Your task to perform on an android device: turn off location Image 0: 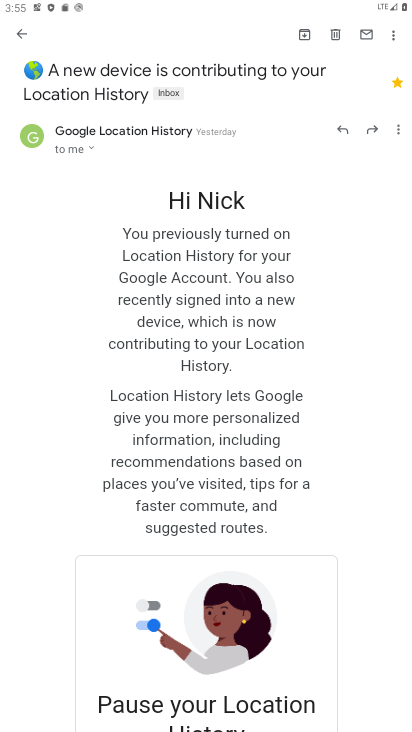
Step 0: press home button
Your task to perform on an android device: turn off location Image 1: 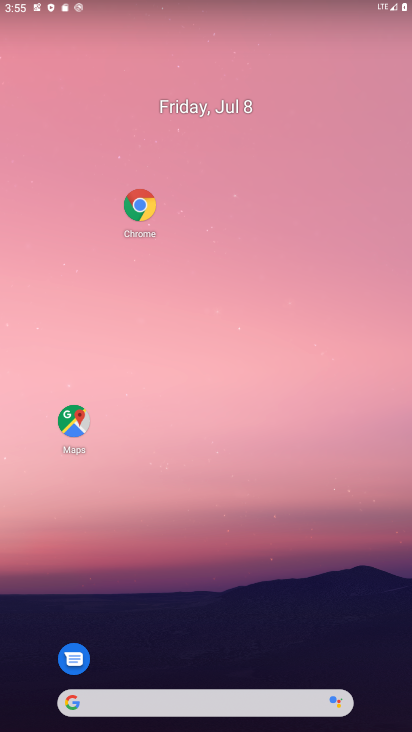
Step 1: drag from (201, 648) to (239, 16)
Your task to perform on an android device: turn off location Image 2: 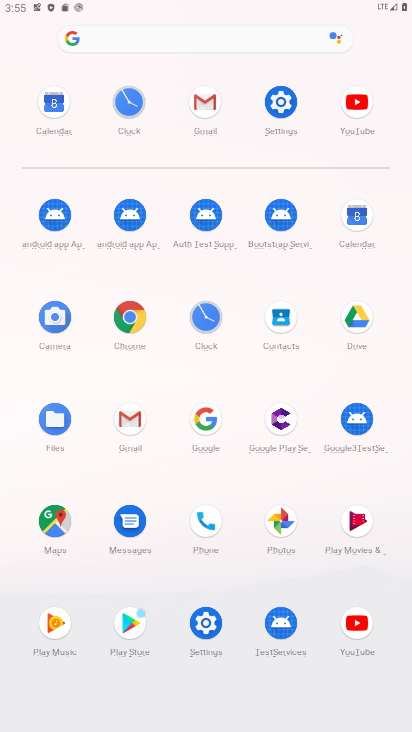
Step 2: click (270, 81)
Your task to perform on an android device: turn off location Image 3: 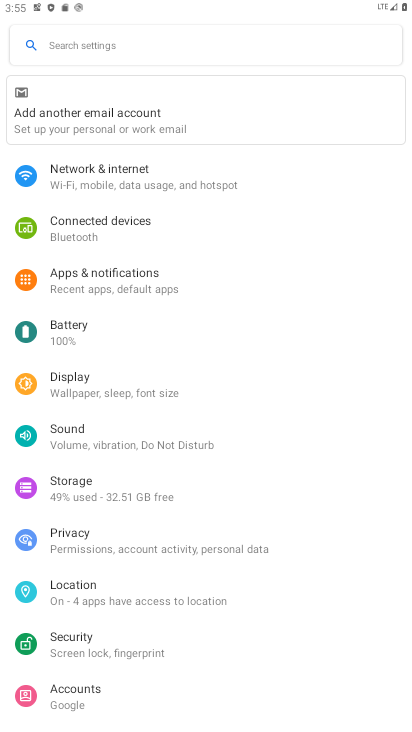
Step 3: click (131, 610)
Your task to perform on an android device: turn off location Image 4: 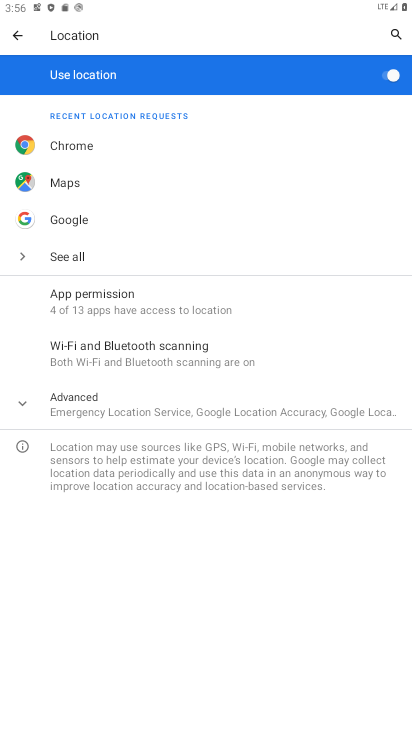
Step 4: click (380, 82)
Your task to perform on an android device: turn off location Image 5: 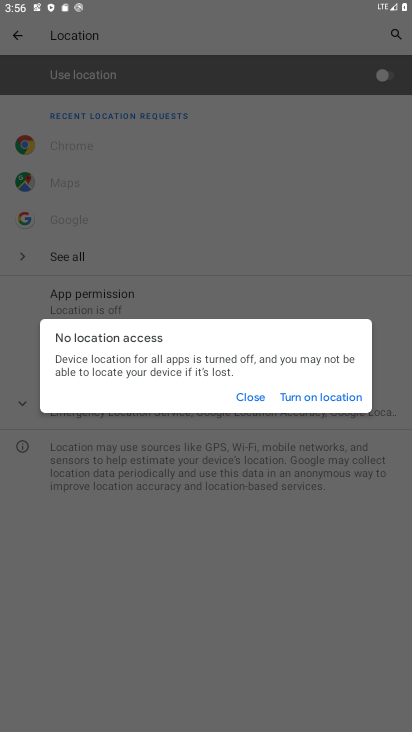
Step 5: task complete